Your task to perform on an android device: Open Google Maps Image 0: 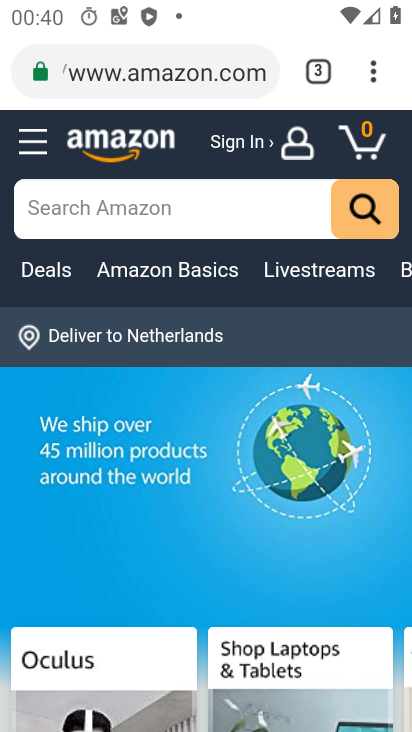
Step 0: press home button
Your task to perform on an android device: Open Google Maps Image 1: 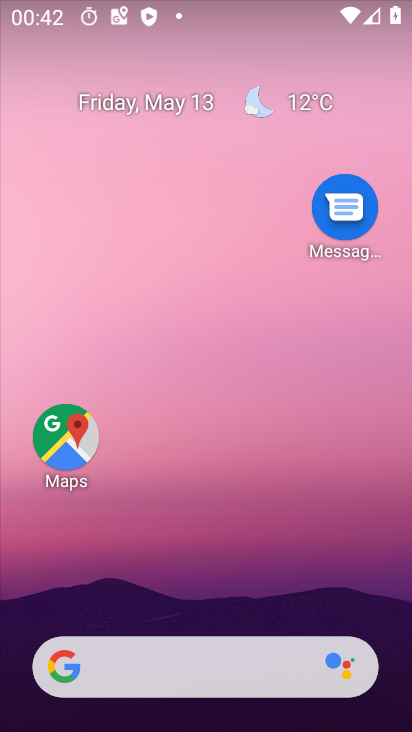
Step 1: drag from (163, 93) to (210, 3)
Your task to perform on an android device: Open Google Maps Image 2: 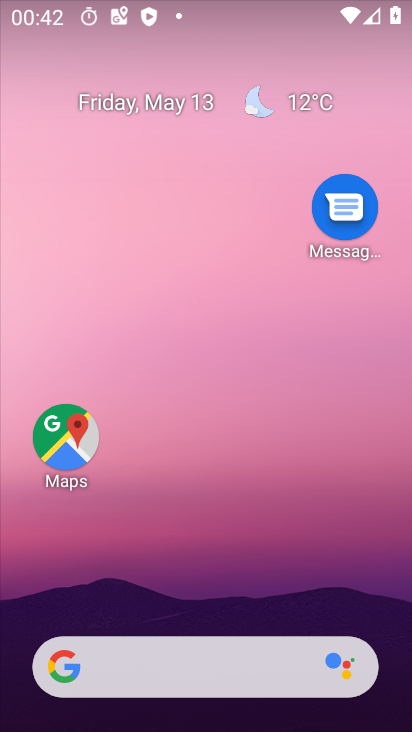
Step 2: drag from (218, 411) to (239, 2)
Your task to perform on an android device: Open Google Maps Image 3: 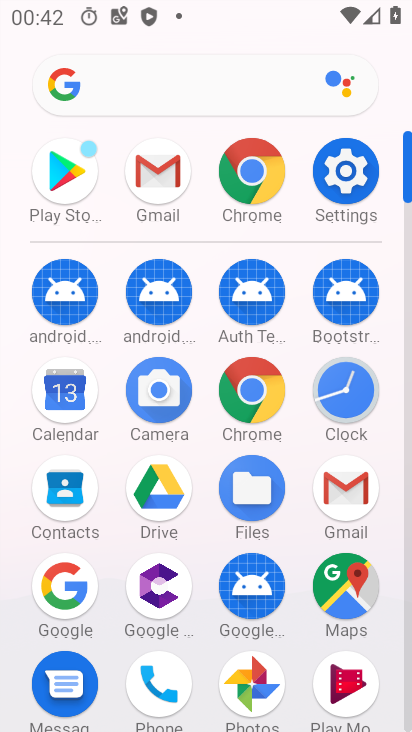
Step 3: click (58, 563)
Your task to perform on an android device: Open Google Maps Image 4: 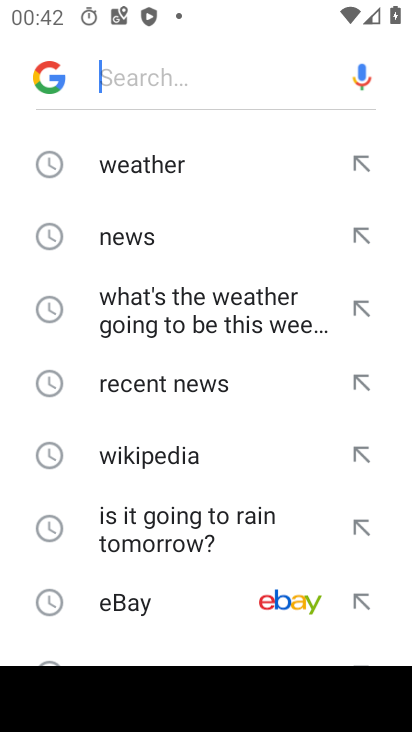
Step 4: task complete